Your task to perform on an android device: open wifi settings Image 0: 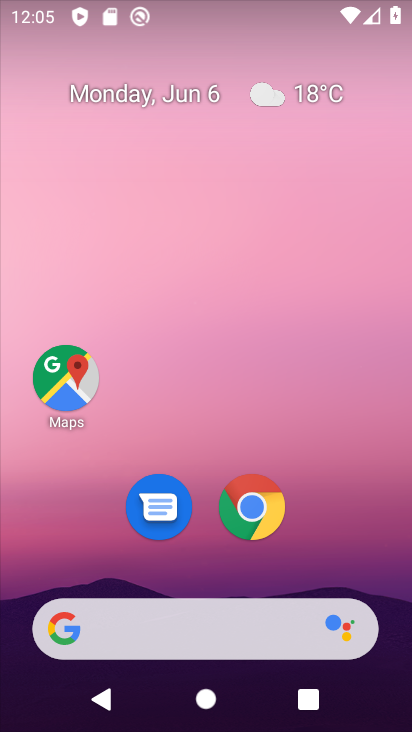
Step 0: drag from (249, 568) to (248, 256)
Your task to perform on an android device: open wifi settings Image 1: 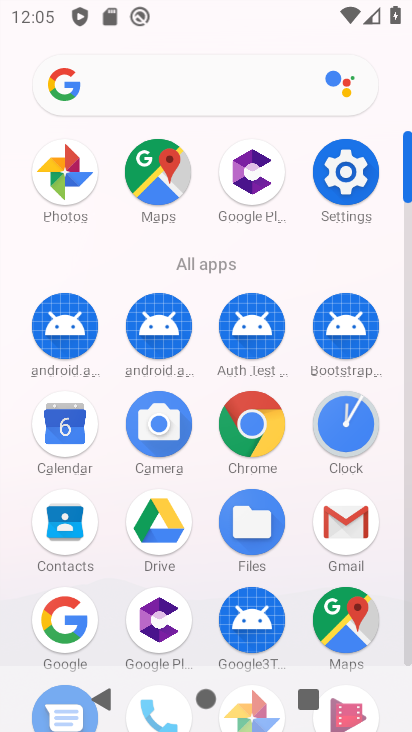
Step 1: click (343, 172)
Your task to perform on an android device: open wifi settings Image 2: 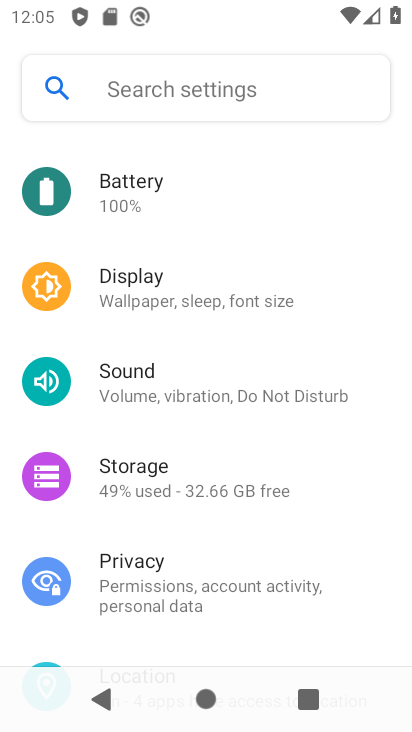
Step 2: drag from (195, 198) to (146, 594)
Your task to perform on an android device: open wifi settings Image 3: 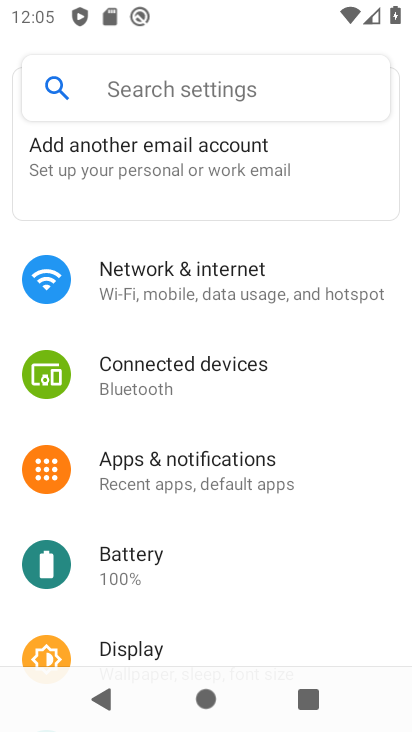
Step 3: click (164, 280)
Your task to perform on an android device: open wifi settings Image 4: 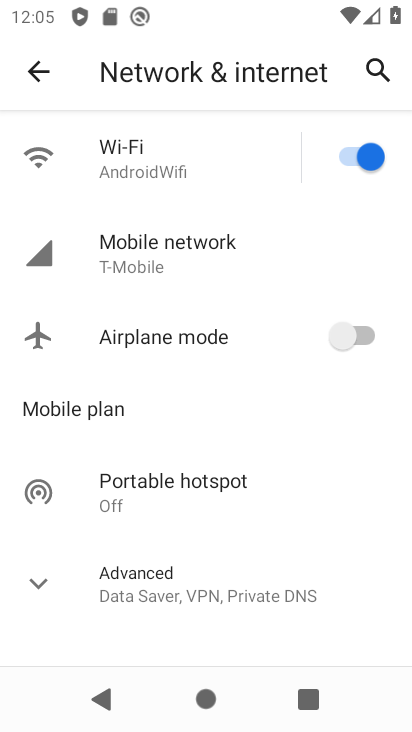
Step 4: click (219, 170)
Your task to perform on an android device: open wifi settings Image 5: 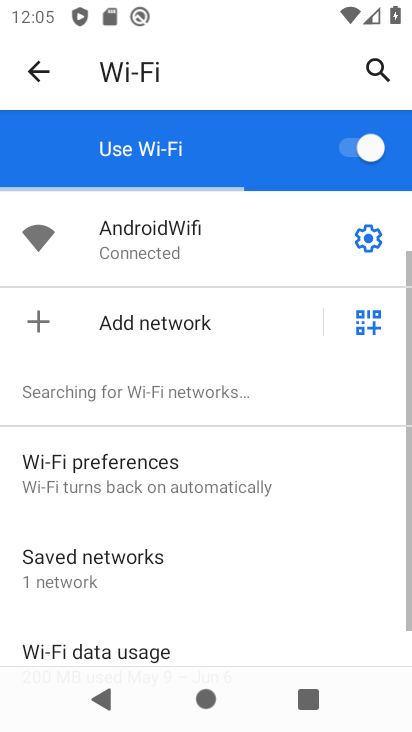
Step 5: task complete